Your task to perform on an android device: open app "Microsoft Authenticator" (install if not already installed) and enter user name: "Cornell@yahoo.com" and password: "bothersome" Image 0: 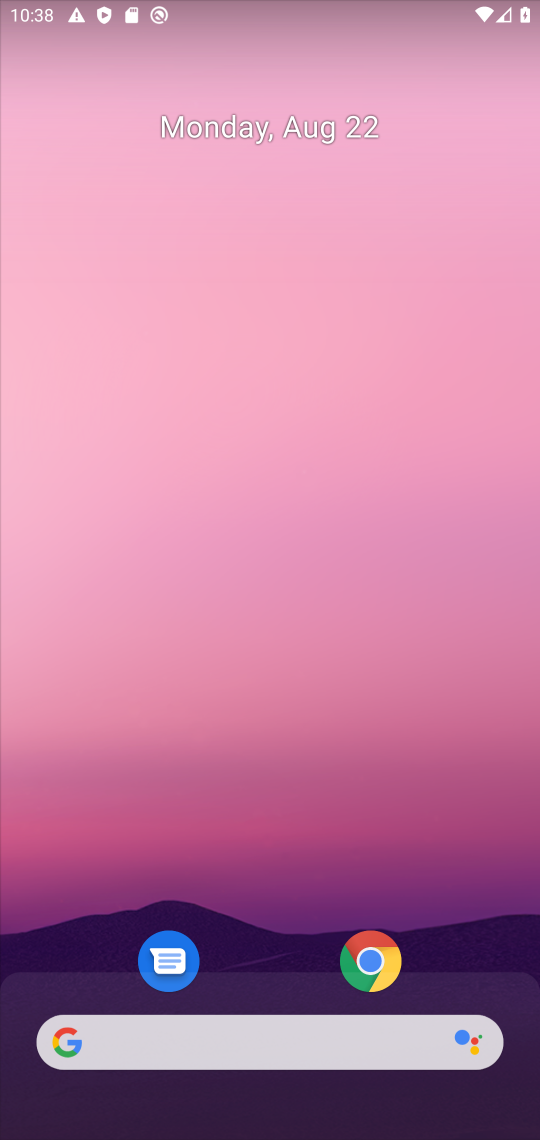
Step 0: drag from (260, 996) to (272, 10)
Your task to perform on an android device: open app "Microsoft Authenticator" (install if not already installed) and enter user name: "Cornell@yahoo.com" and password: "bothersome" Image 1: 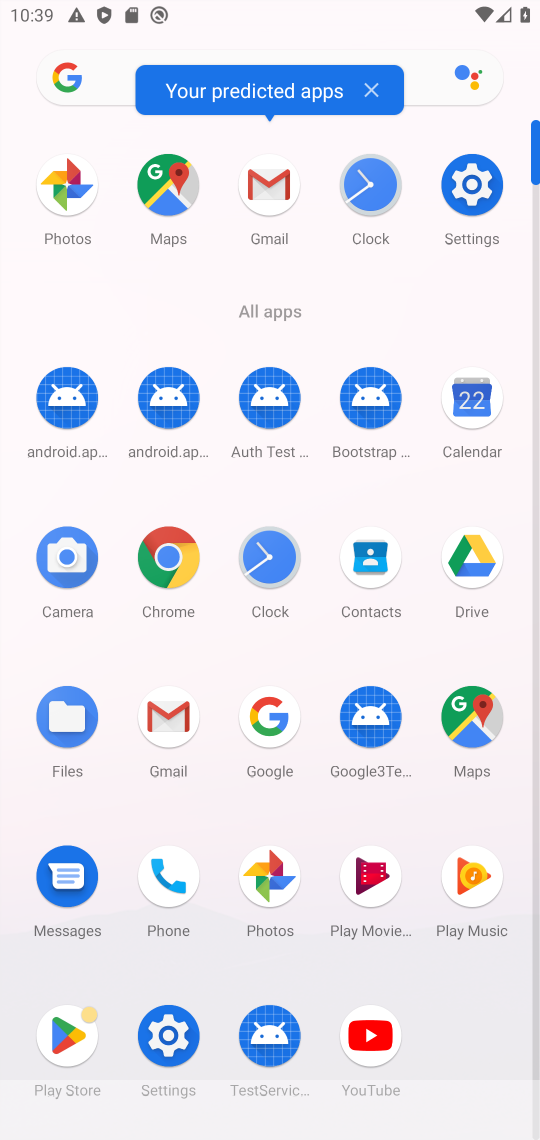
Step 1: click (60, 1039)
Your task to perform on an android device: open app "Microsoft Authenticator" (install if not already installed) and enter user name: "Cornell@yahoo.com" and password: "bothersome" Image 2: 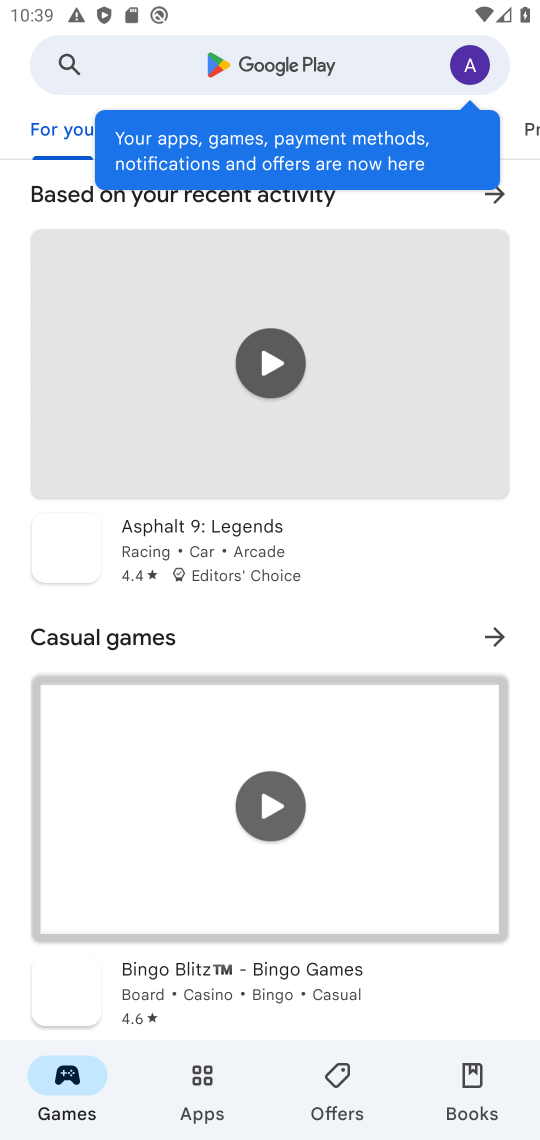
Step 2: click (339, 66)
Your task to perform on an android device: open app "Microsoft Authenticator" (install if not already installed) and enter user name: "Cornell@yahoo.com" and password: "bothersome" Image 3: 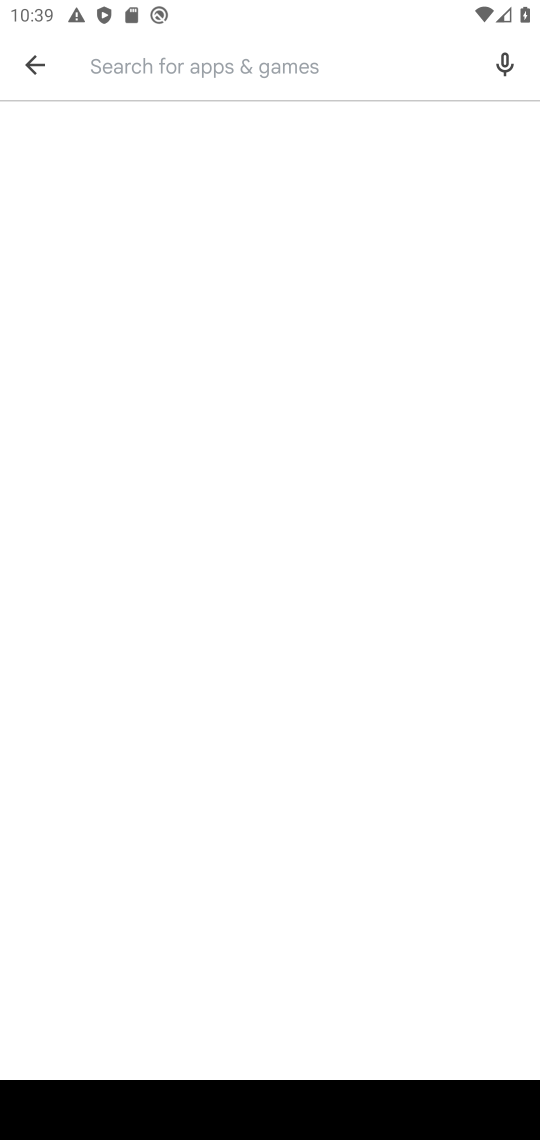
Step 3: type "microssoft authiticator"
Your task to perform on an android device: open app "Microsoft Authenticator" (install if not already installed) and enter user name: "Cornell@yahoo.com" and password: "bothersome" Image 4: 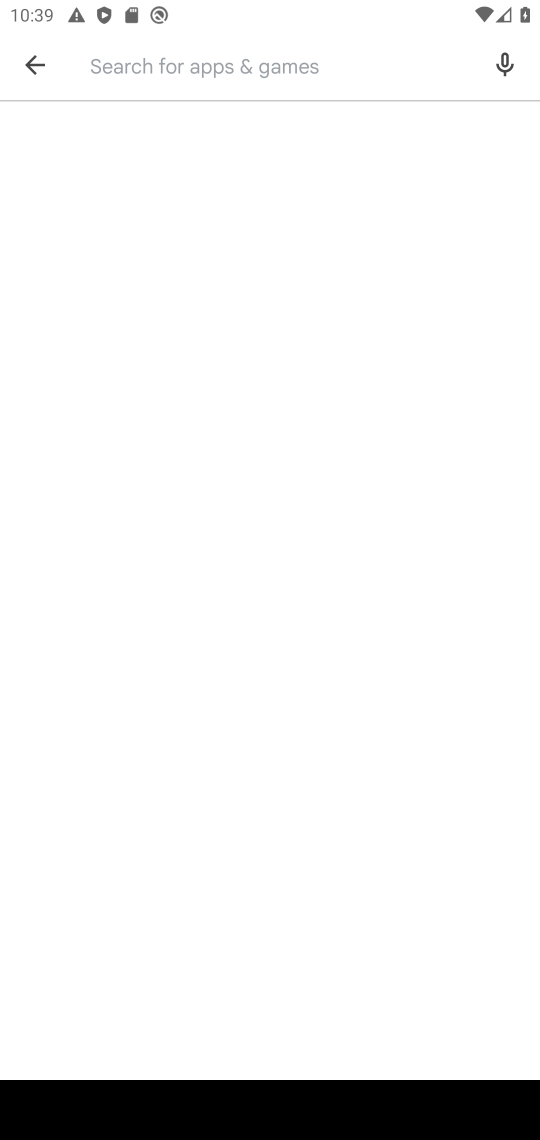
Step 4: click (341, 56)
Your task to perform on an android device: open app "Microsoft Authenticator" (install if not already installed) and enter user name: "Cornell@yahoo.com" and password: "bothersome" Image 5: 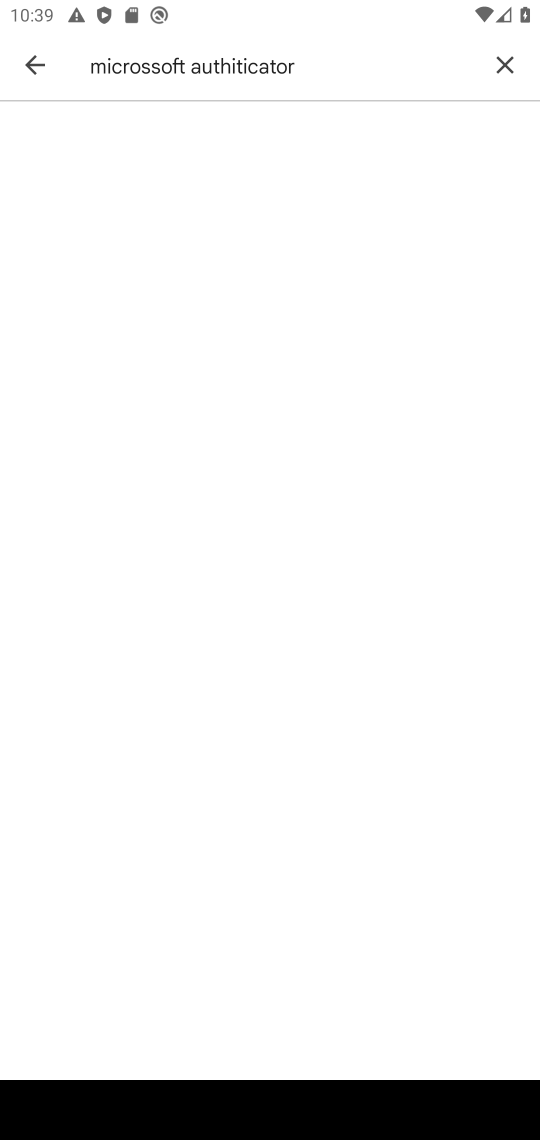
Step 5: click (341, 56)
Your task to perform on an android device: open app "Microsoft Authenticator" (install if not already installed) and enter user name: "Cornell@yahoo.com" and password: "bothersome" Image 6: 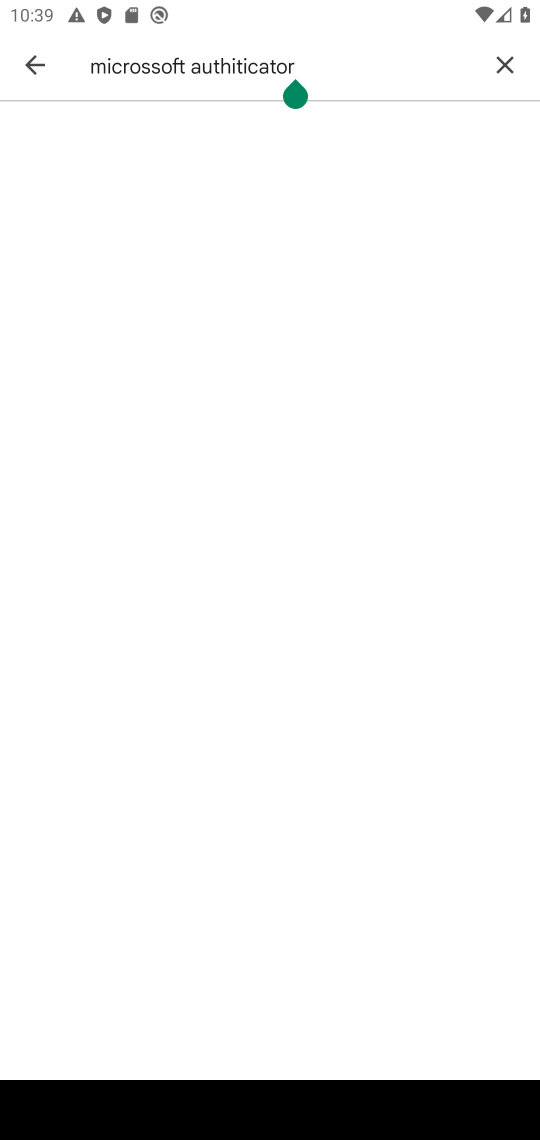
Step 6: click (341, 56)
Your task to perform on an android device: open app "Microsoft Authenticator" (install if not already installed) and enter user name: "Cornell@yahoo.com" and password: "bothersome" Image 7: 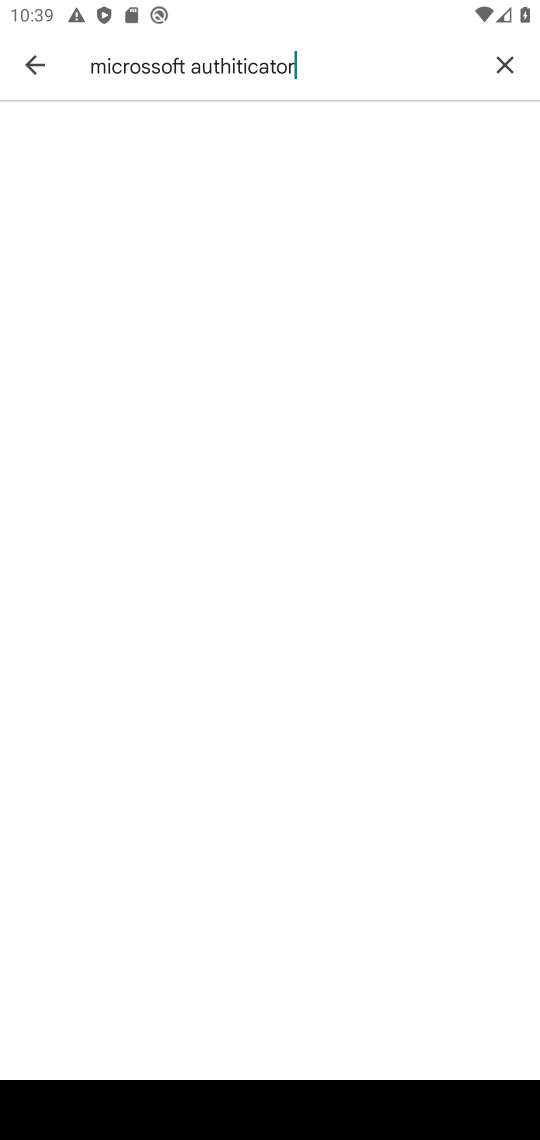
Step 7: click (300, 75)
Your task to perform on an android device: open app "Microsoft Authenticator" (install if not already installed) and enter user name: "Cornell@yahoo.com" and password: "bothersome" Image 8: 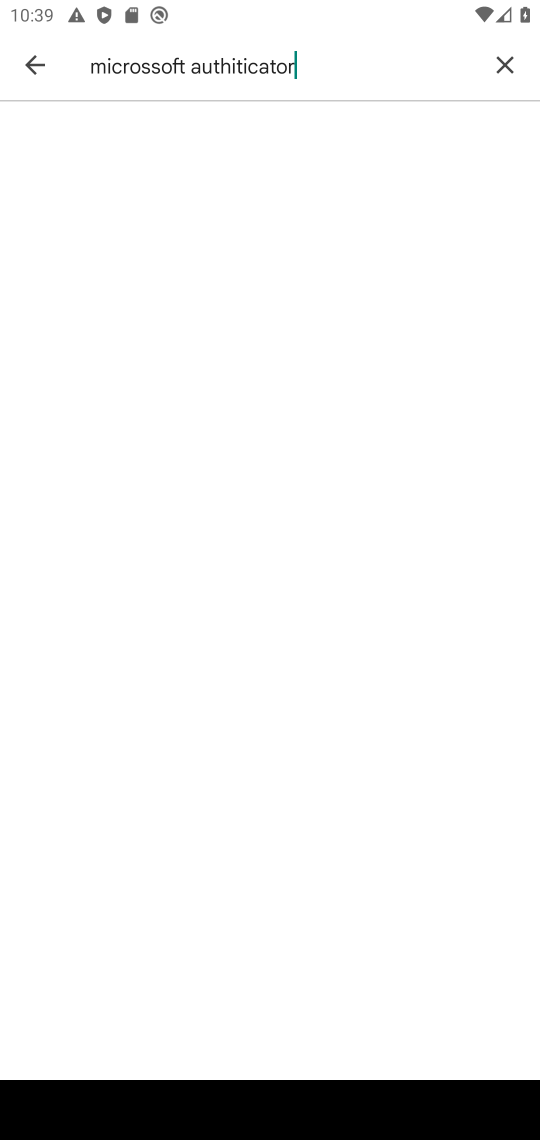
Step 8: click (300, 75)
Your task to perform on an android device: open app "Microsoft Authenticator" (install if not already installed) and enter user name: "Cornell@yahoo.com" and password: "bothersome" Image 9: 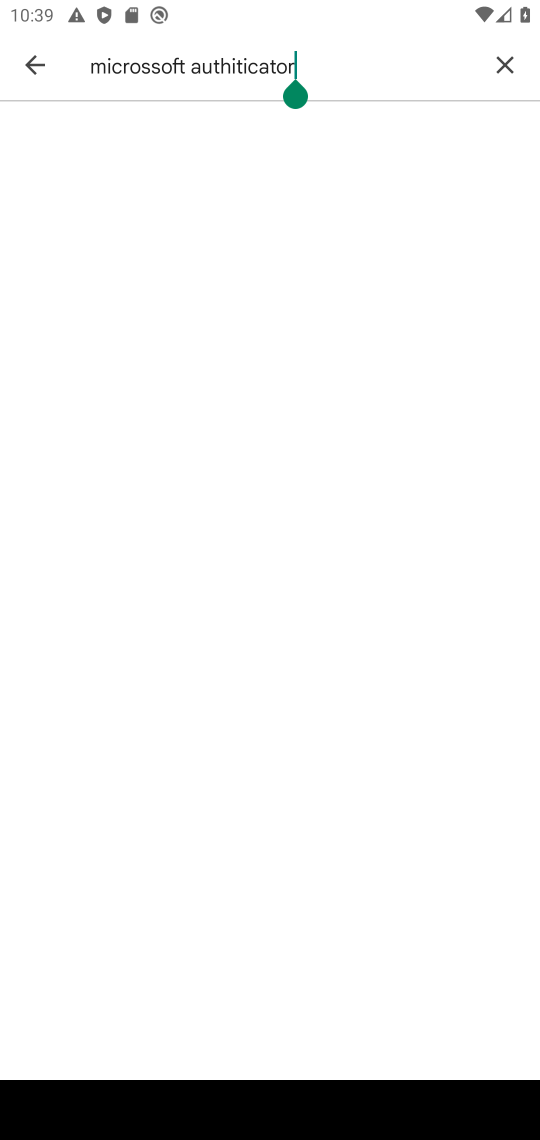
Step 9: task complete